Your task to perform on an android device: Go to privacy settings Image 0: 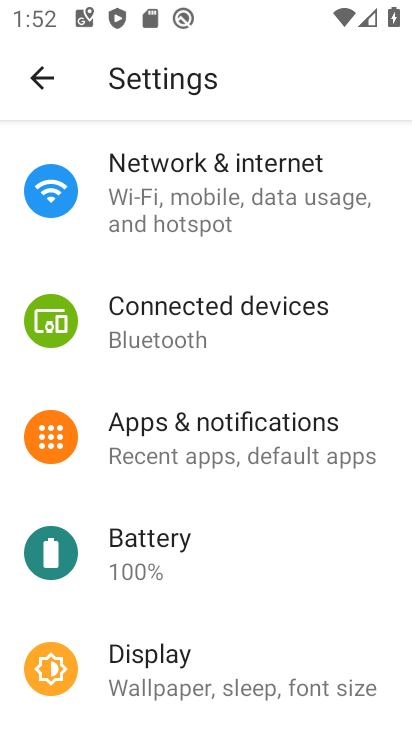
Step 0: drag from (389, 546) to (332, 247)
Your task to perform on an android device: Go to privacy settings Image 1: 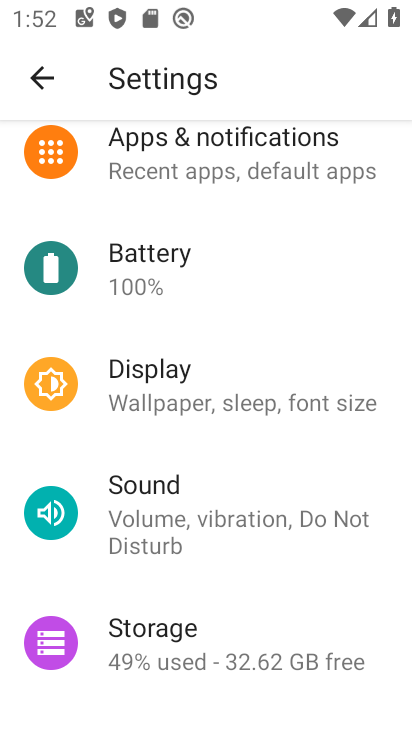
Step 1: drag from (273, 618) to (226, 318)
Your task to perform on an android device: Go to privacy settings Image 2: 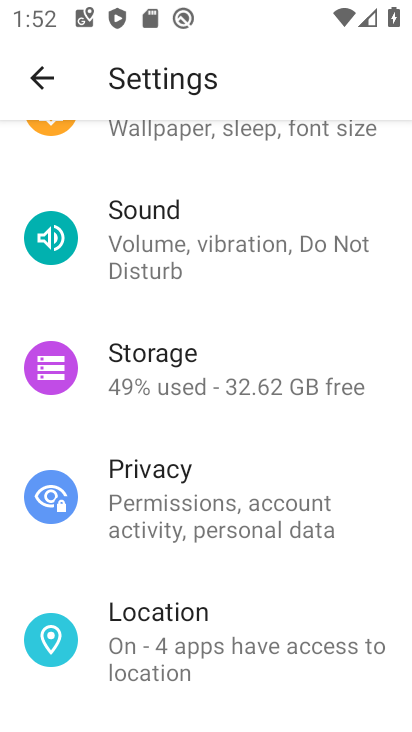
Step 2: click (213, 501)
Your task to perform on an android device: Go to privacy settings Image 3: 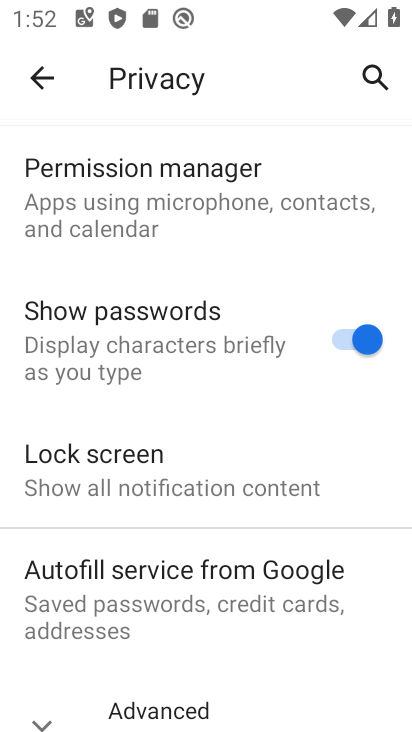
Step 3: task complete